Your task to perform on an android device: check data usage Image 0: 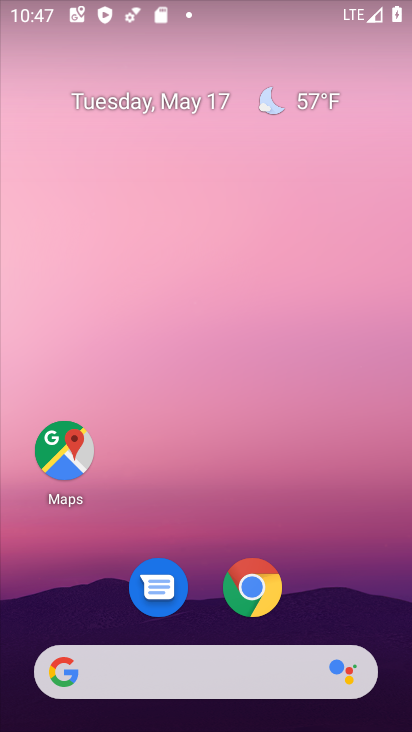
Step 0: drag from (381, 584) to (286, 75)
Your task to perform on an android device: check data usage Image 1: 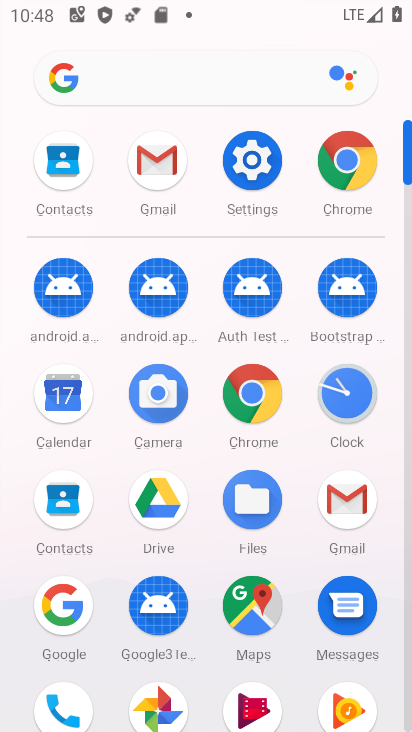
Step 1: click (231, 150)
Your task to perform on an android device: check data usage Image 2: 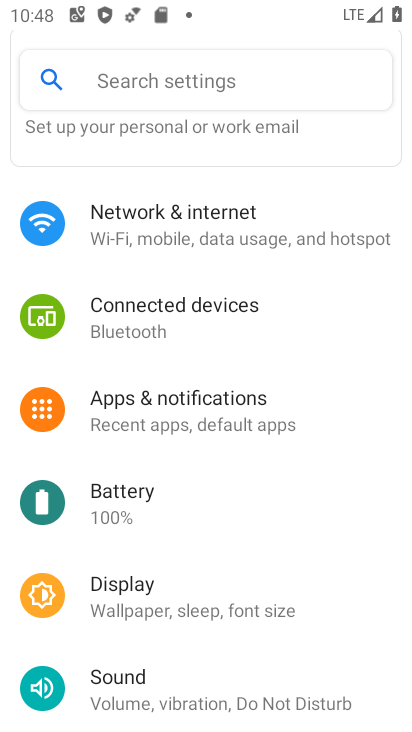
Step 2: click (203, 199)
Your task to perform on an android device: check data usage Image 3: 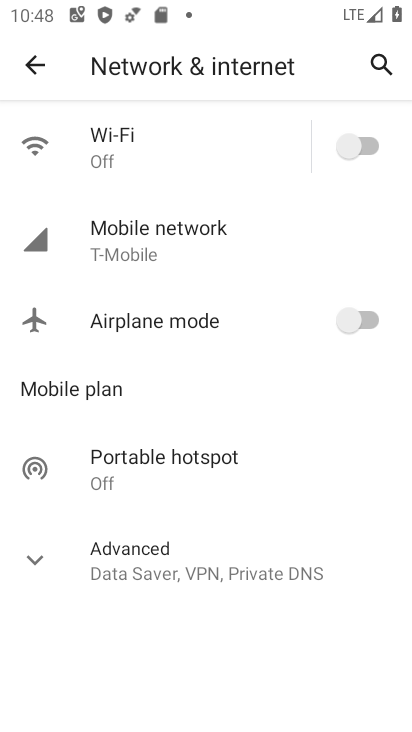
Step 3: click (188, 245)
Your task to perform on an android device: check data usage Image 4: 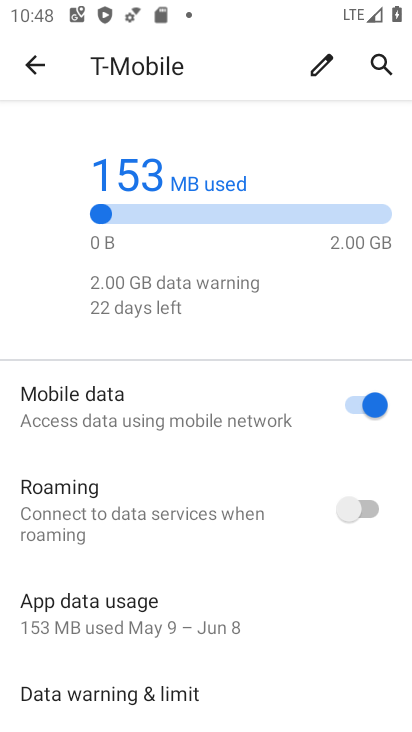
Step 4: click (141, 633)
Your task to perform on an android device: check data usage Image 5: 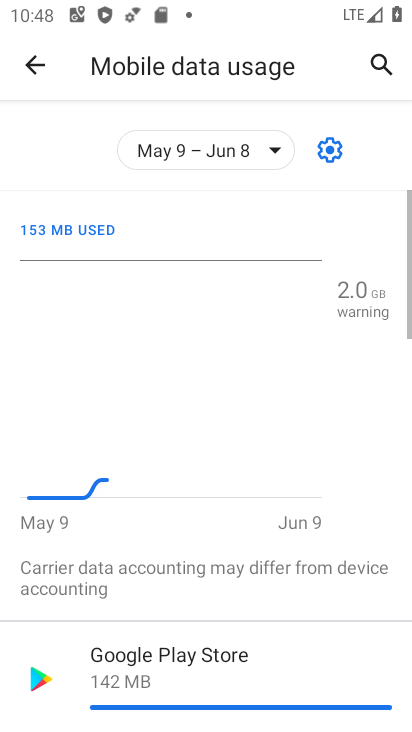
Step 5: task complete